Your task to perform on an android device: create a new album in the google photos Image 0: 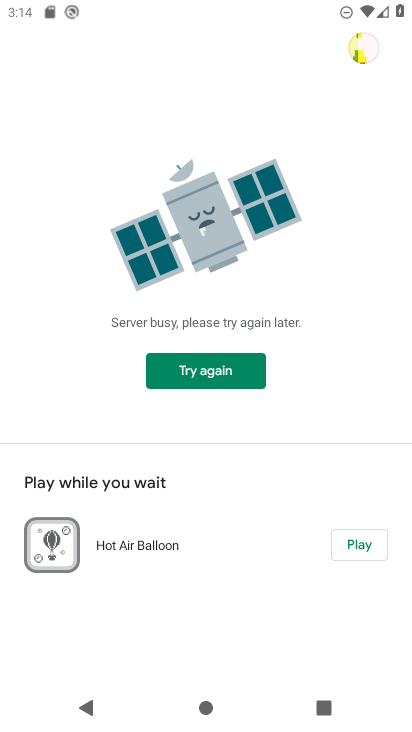
Step 0: press home button
Your task to perform on an android device: create a new album in the google photos Image 1: 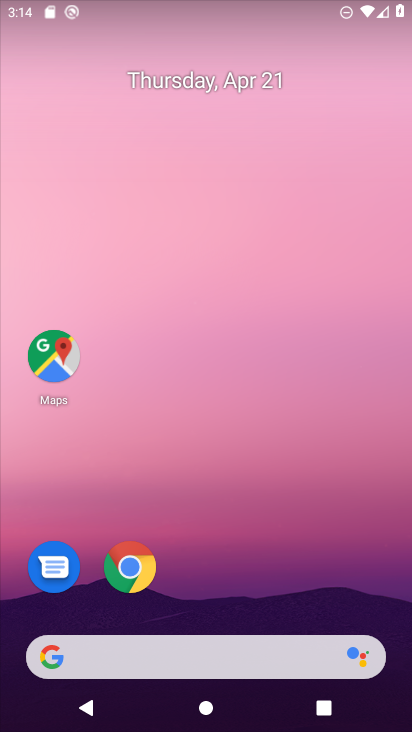
Step 1: drag from (192, 617) to (241, 20)
Your task to perform on an android device: create a new album in the google photos Image 2: 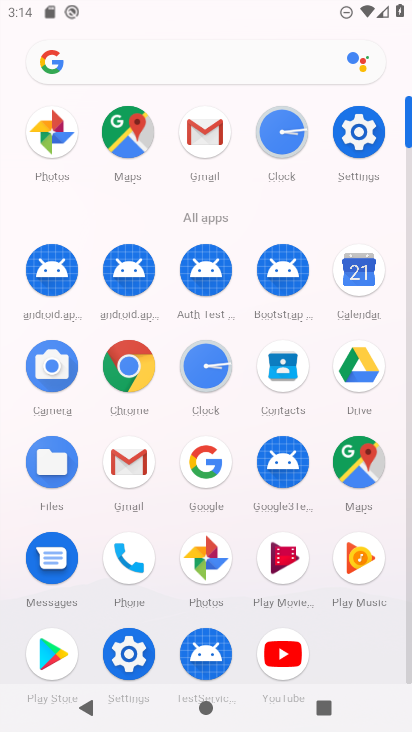
Step 2: click (201, 566)
Your task to perform on an android device: create a new album in the google photos Image 3: 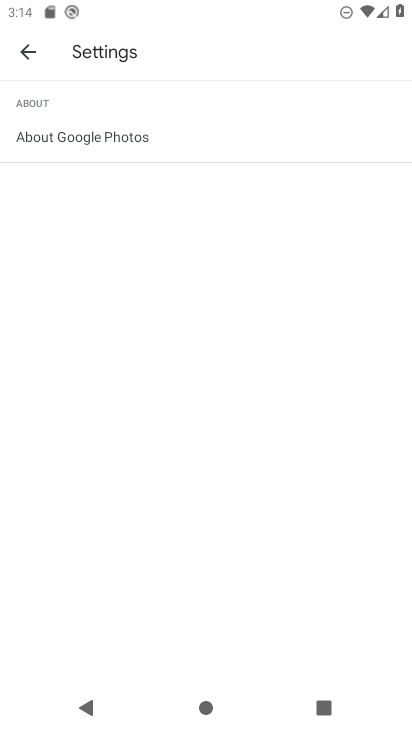
Step 3: press back button
Your task to perform on an android device: create a new album in the google photos Image 4: 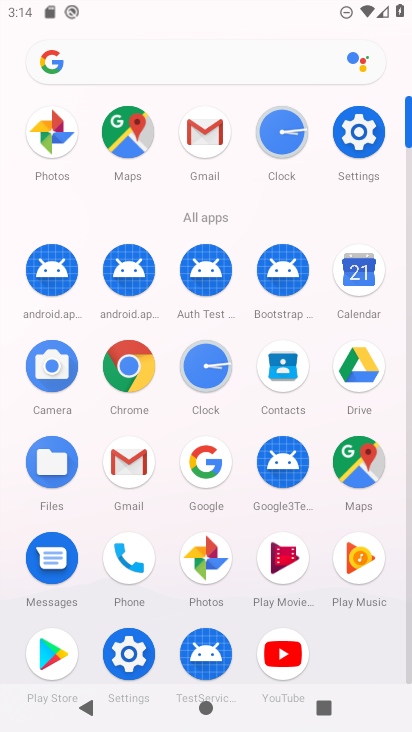
Step 4: click (201, 554)
Your task to perform on an android device: create a new album in the google photos Image 5: 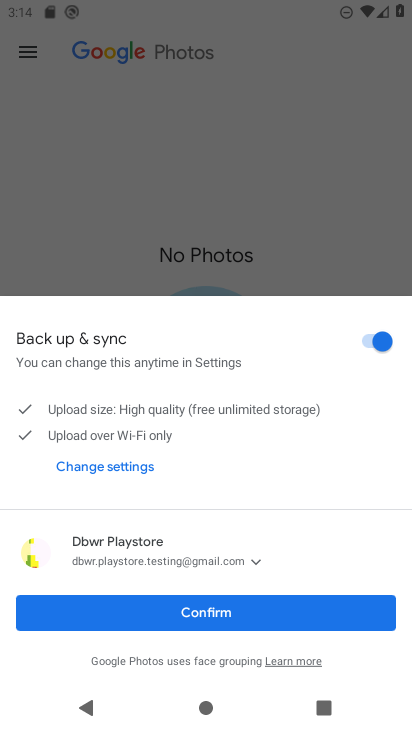
Step 5: click (211, 606)
Your task to perform on an android device: create a new album in the google photos Image 6: 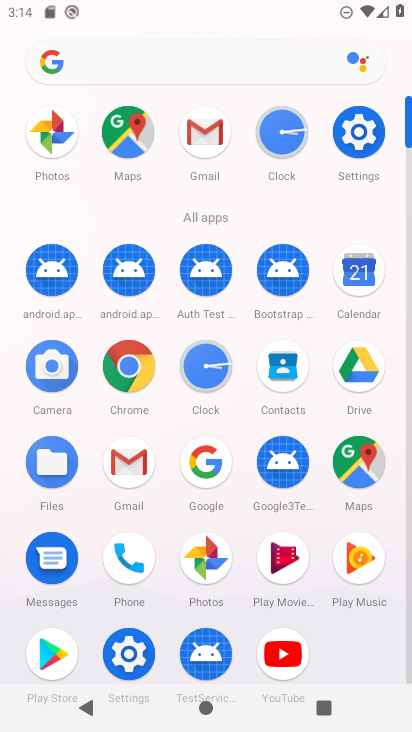
Step 6: click (214, 552)
Your task to perform on an android device: create a new album in the google photos Image 7: 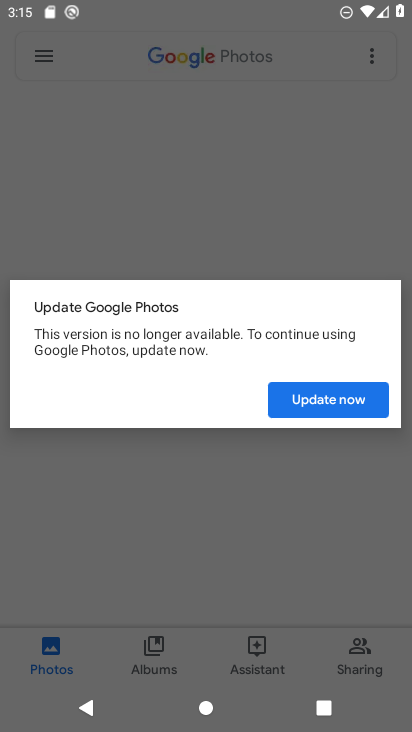
Step 7: click (331, 404)
Your task to perform on an android device: create a new album in the google photos Image 8: 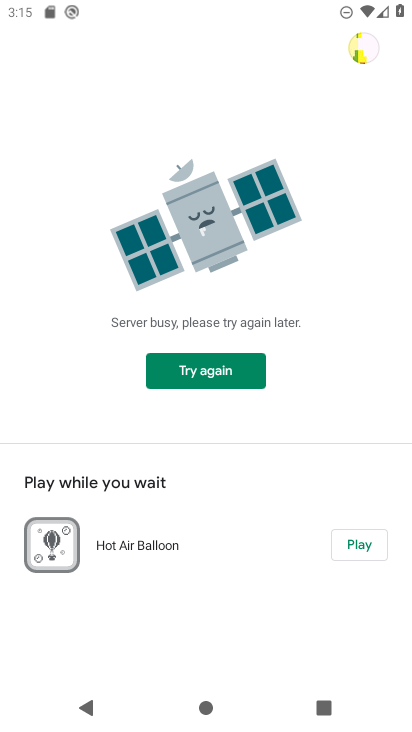
Step 8: task complete